Your task to perform on an android device: Show the shopping cart on bestbuy.com. Add "razer nari" to the cart on bestbuy.com Image 0: 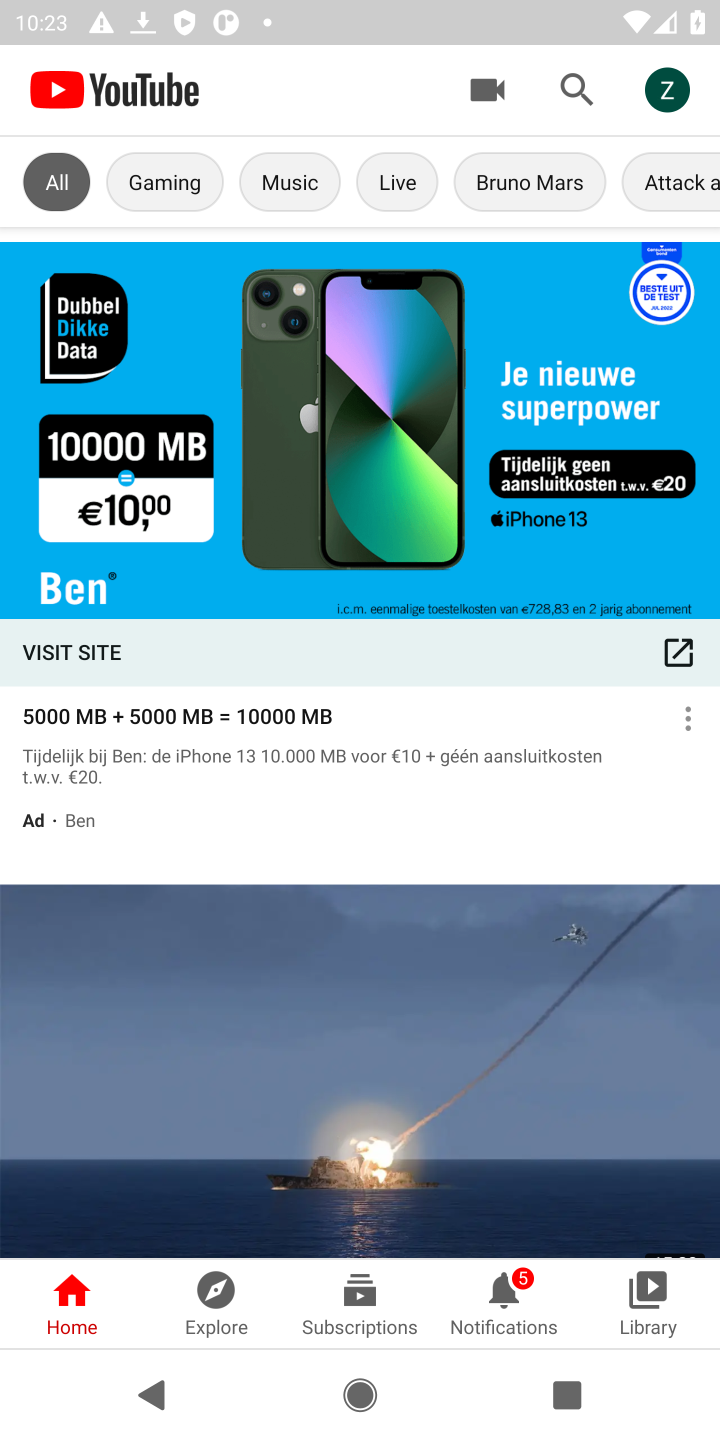
Step 0: press home button
Your task to perform on an android device: Show the shopping cart on bestbuy.com. Add "razer nari" to the cart on bestbuy.com Image 1: 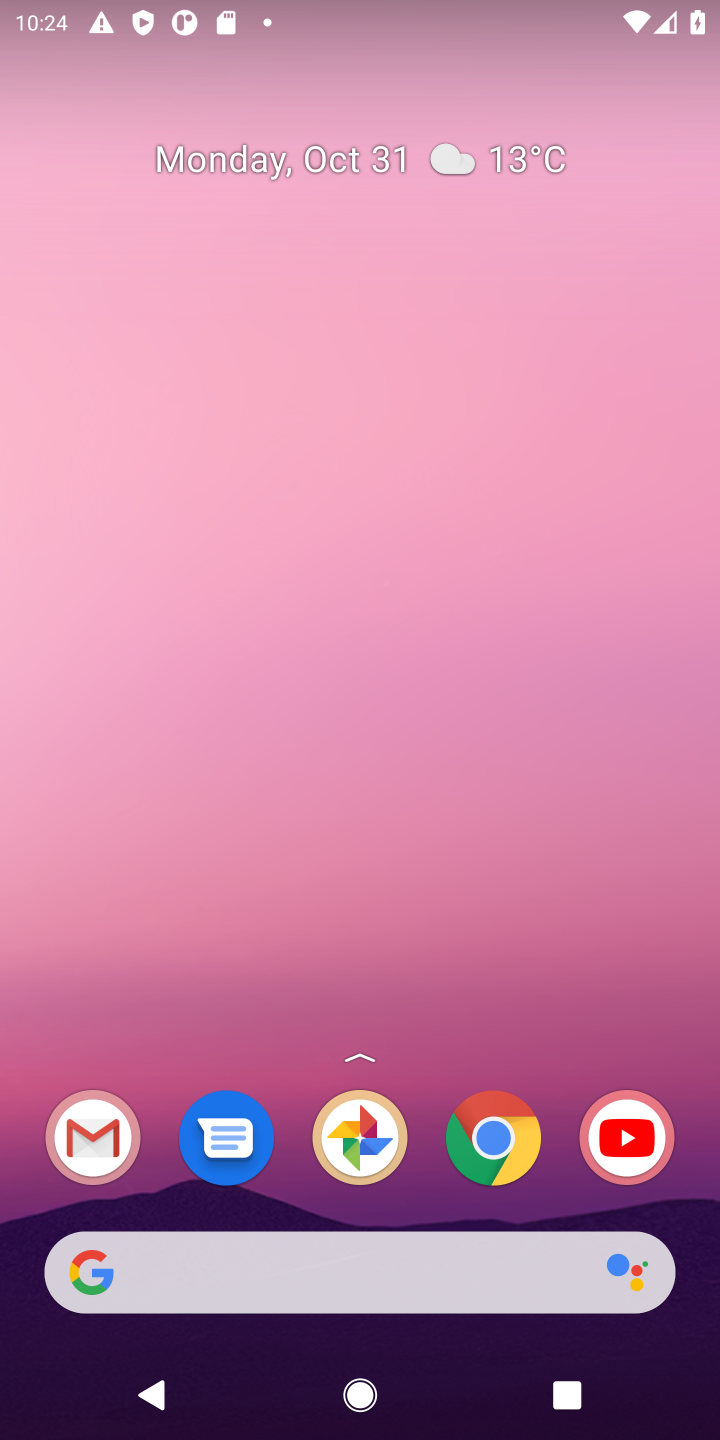
Step 1: click (511, 1136)
Your task to perform on an android device: Show the shopping cart on bestbuy.com. Add "razer nari" to the cart on bestbuy.com Image 2: 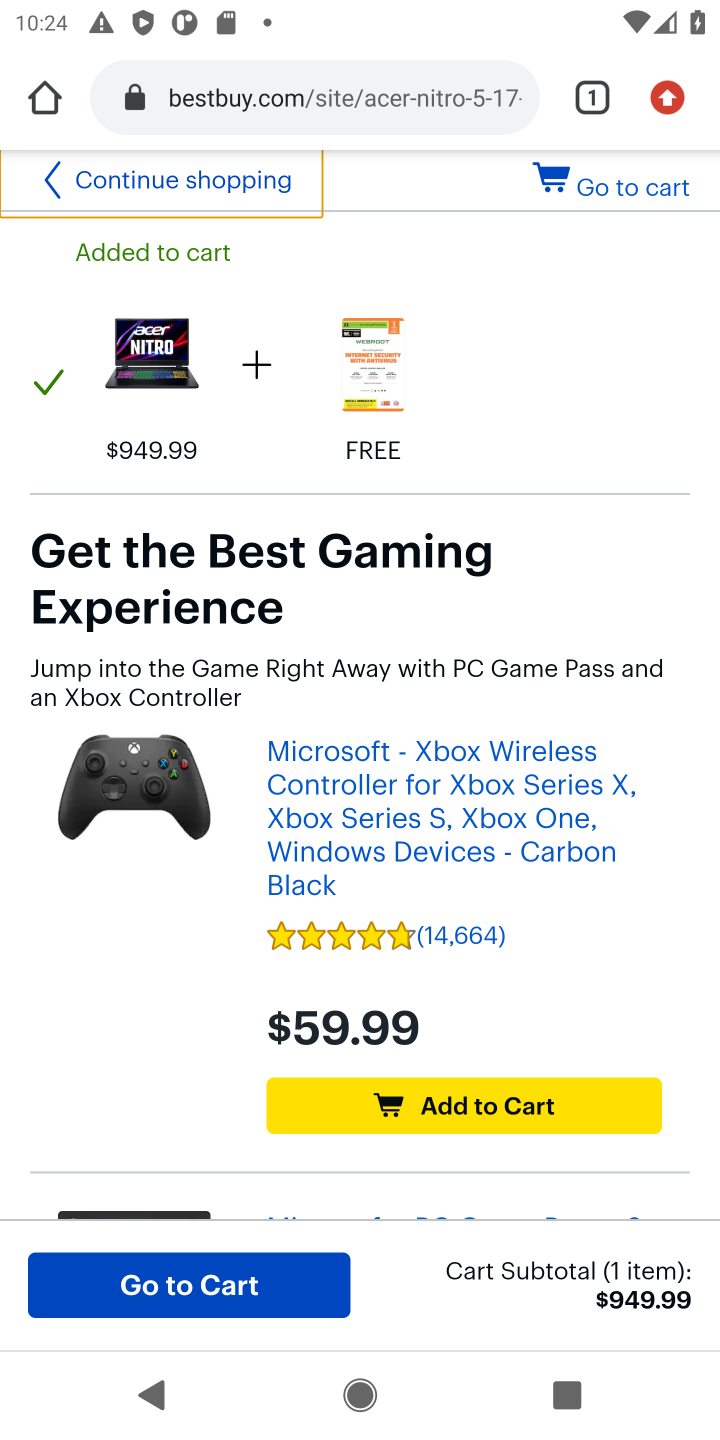
Step 2: click (276, 93)
Your task to perform on an android device: Show the shopping cart on bestbuy.com. Add "razer nari" to the cart on bestbuy.com Image 3: 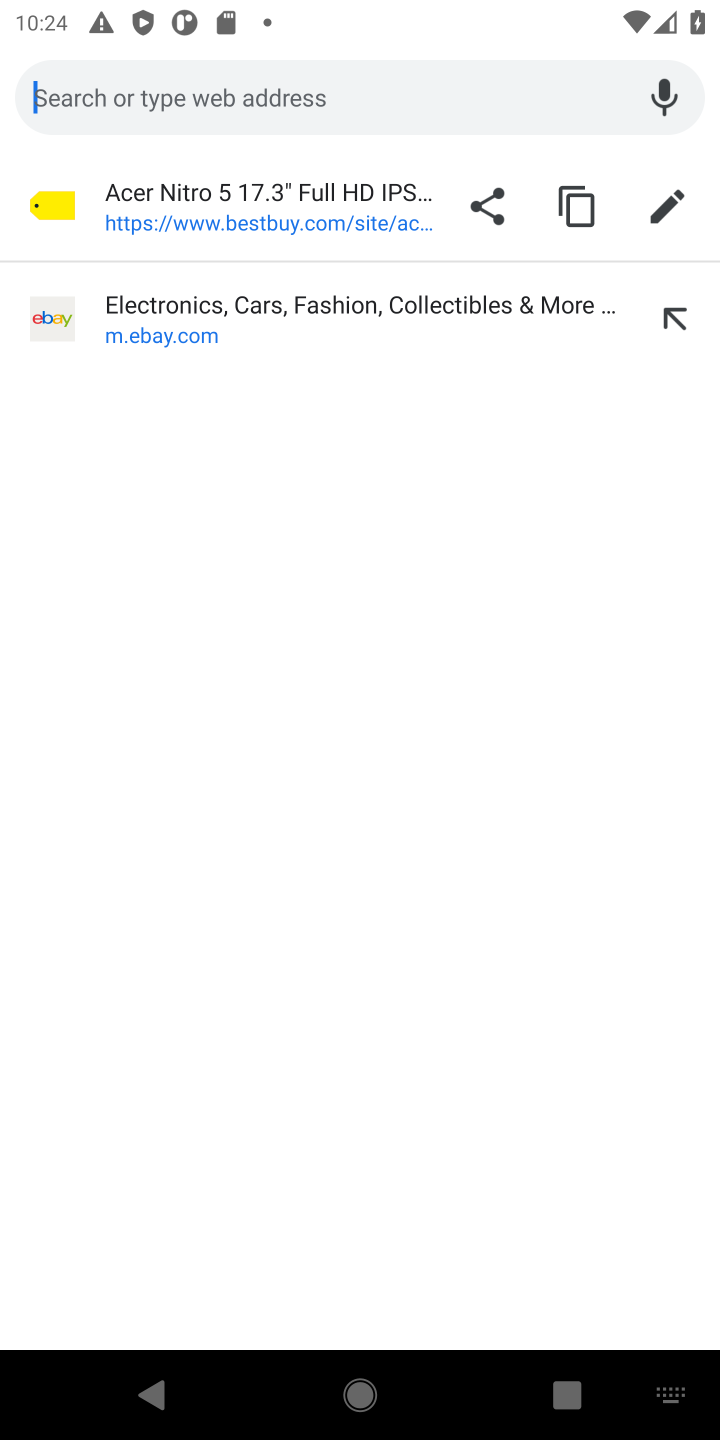
Step 3: press back button
Your task to perform on an android device: Show the shopping cart on bestbuy.com. Add "razer nari" to the cart on bestbuy.com Image 4: 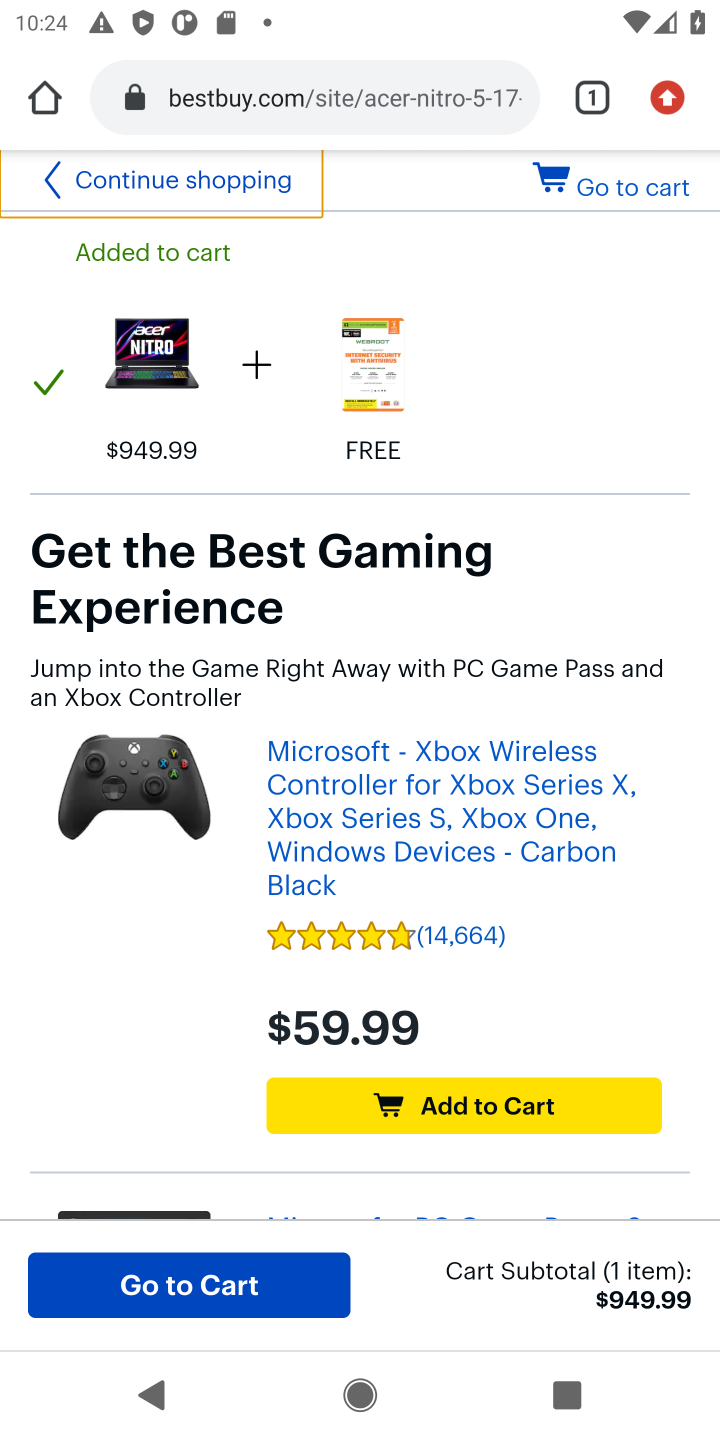
Step 4: click (198, 177)
Your task to perform on an android device: Show the shopping cart on bestbuy.com. Add "razer nari" to the cart on bestbuy.com Image 5: 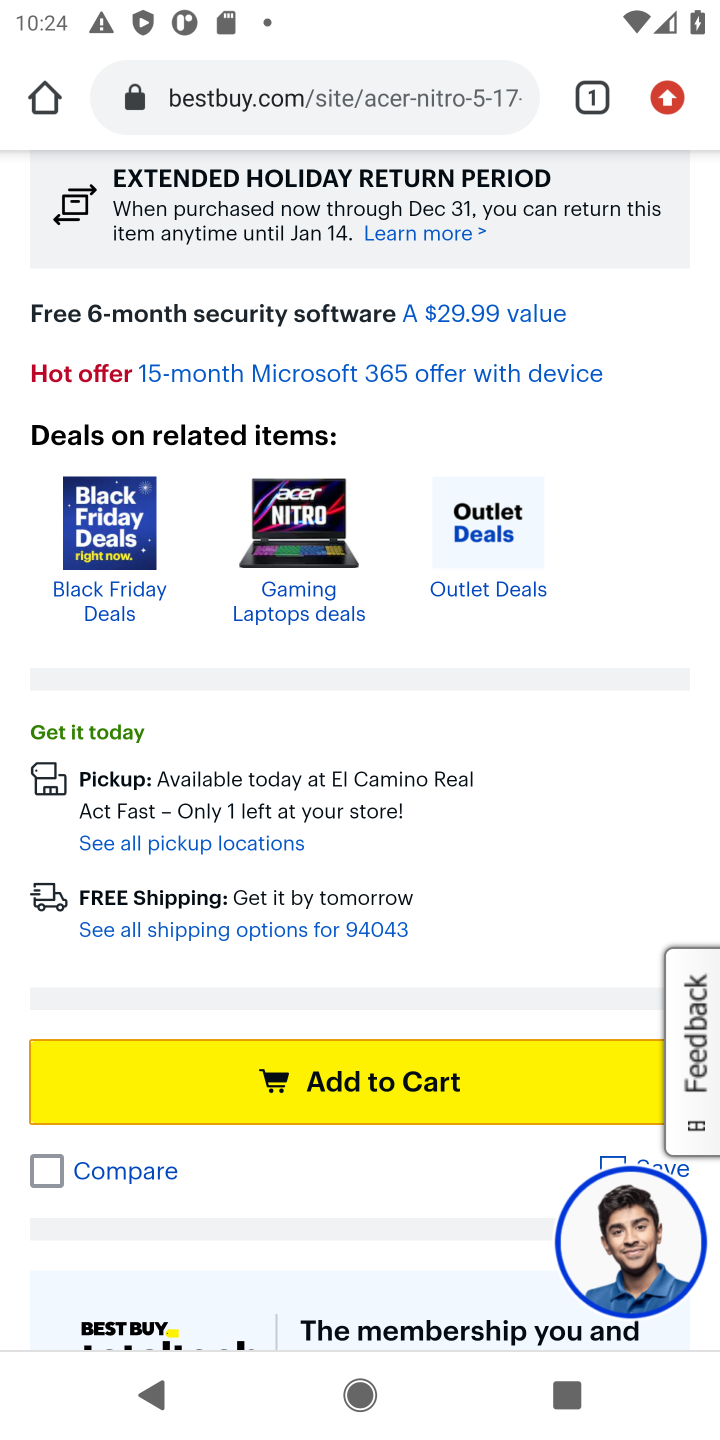
Step 5: drag from (486, 280) to (409, 1133)
Your task to perform on an android device: Show the shopping cart on bestbuy.com. Add "razer nari" to the cart on bestbuy.com Image 6: 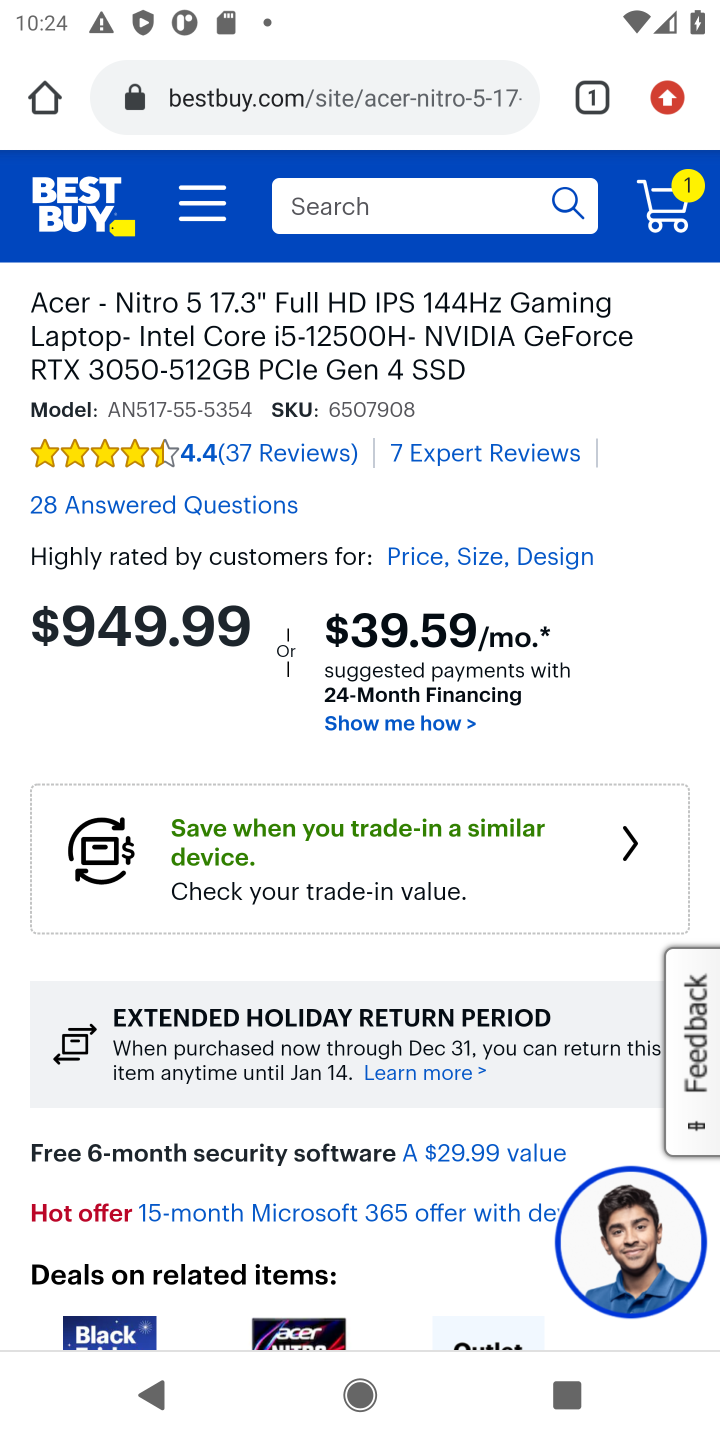
Step 6: click (402, 214)
Your task to perform on an android device: Show the shopping cart on bestbuy.com. Add "razer nari" to the cart on bestbuy.com Image 7: 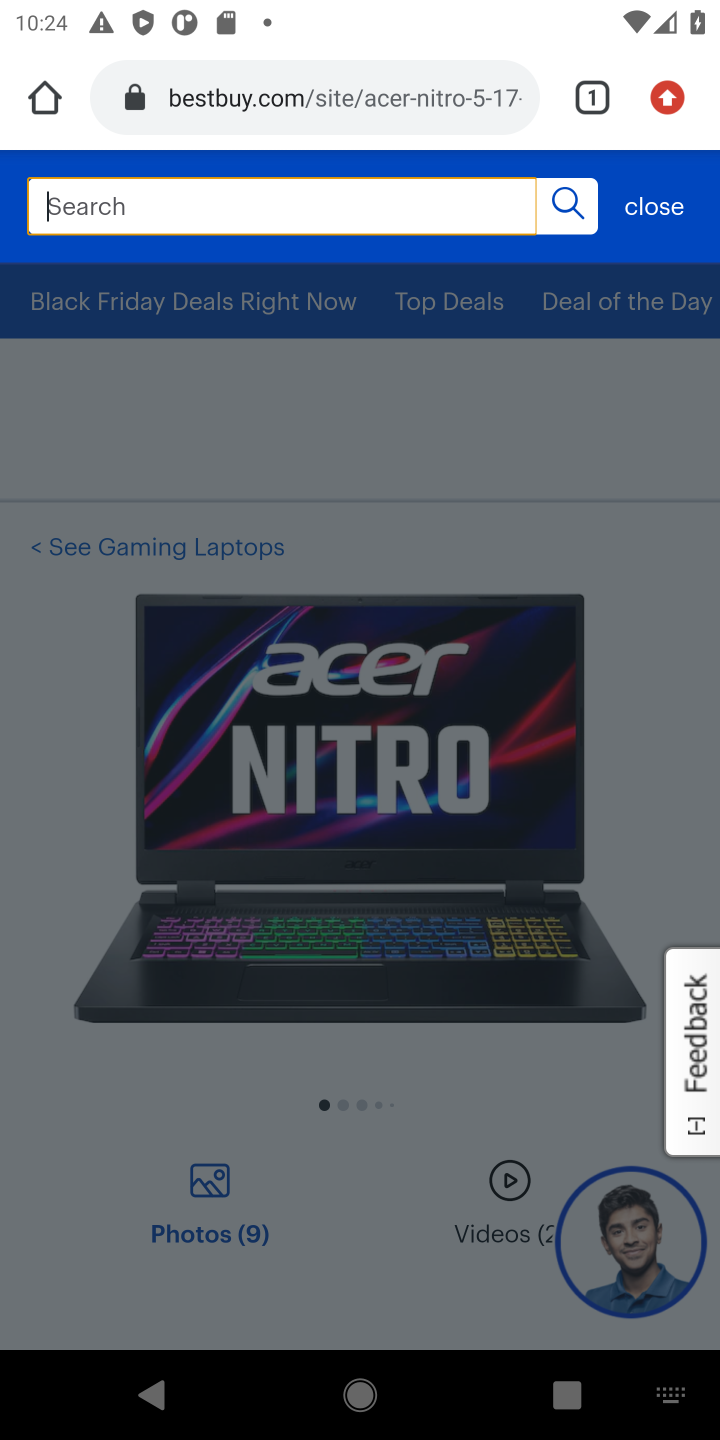
Step 7: type "razer nari"
Your task to perform on an android device: Show the shopping cart on bestbuy.com. Add "razer nari" to the cart on bestbuy.com Image 8: 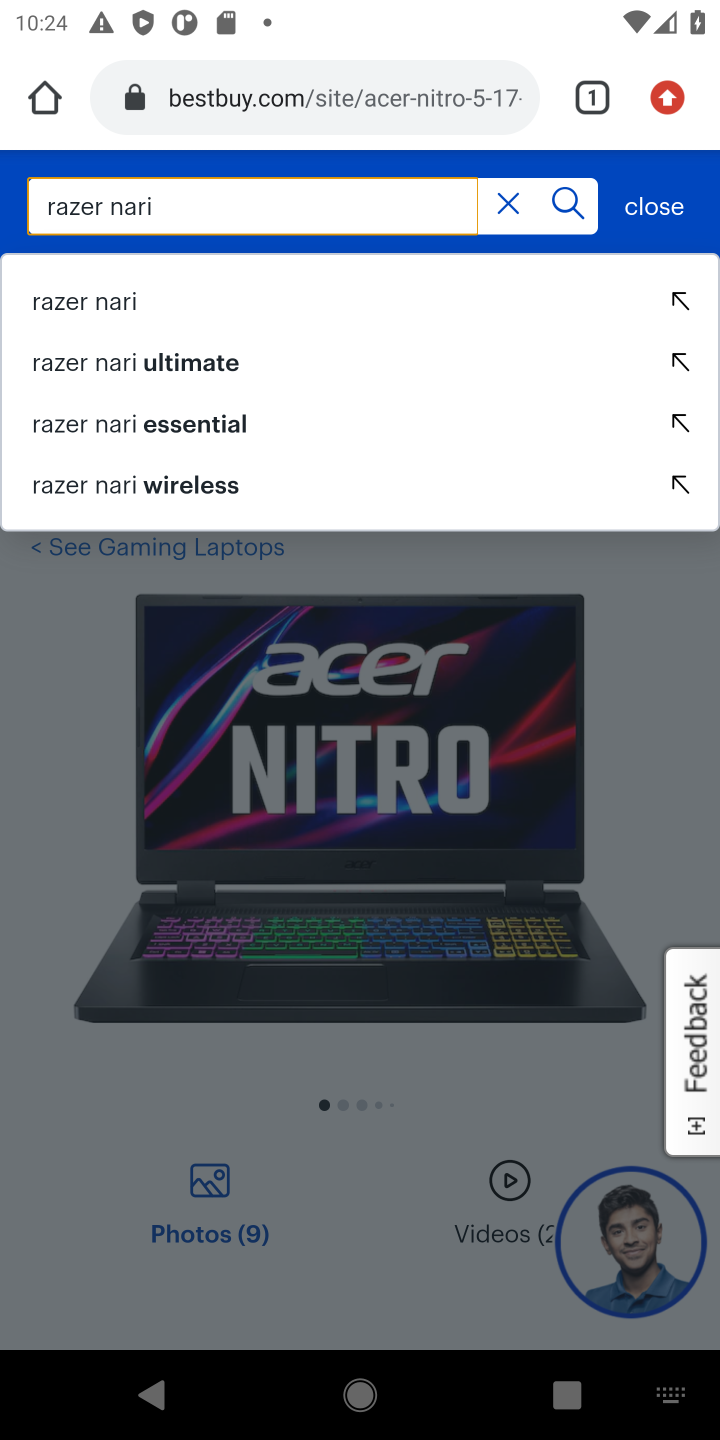
Step 8: click (67, 295)
Your task to perform on an android device: Show the shopping cart on bestbuy.com. Add "razer nari" to the cart on bestbuy.com Image 9: 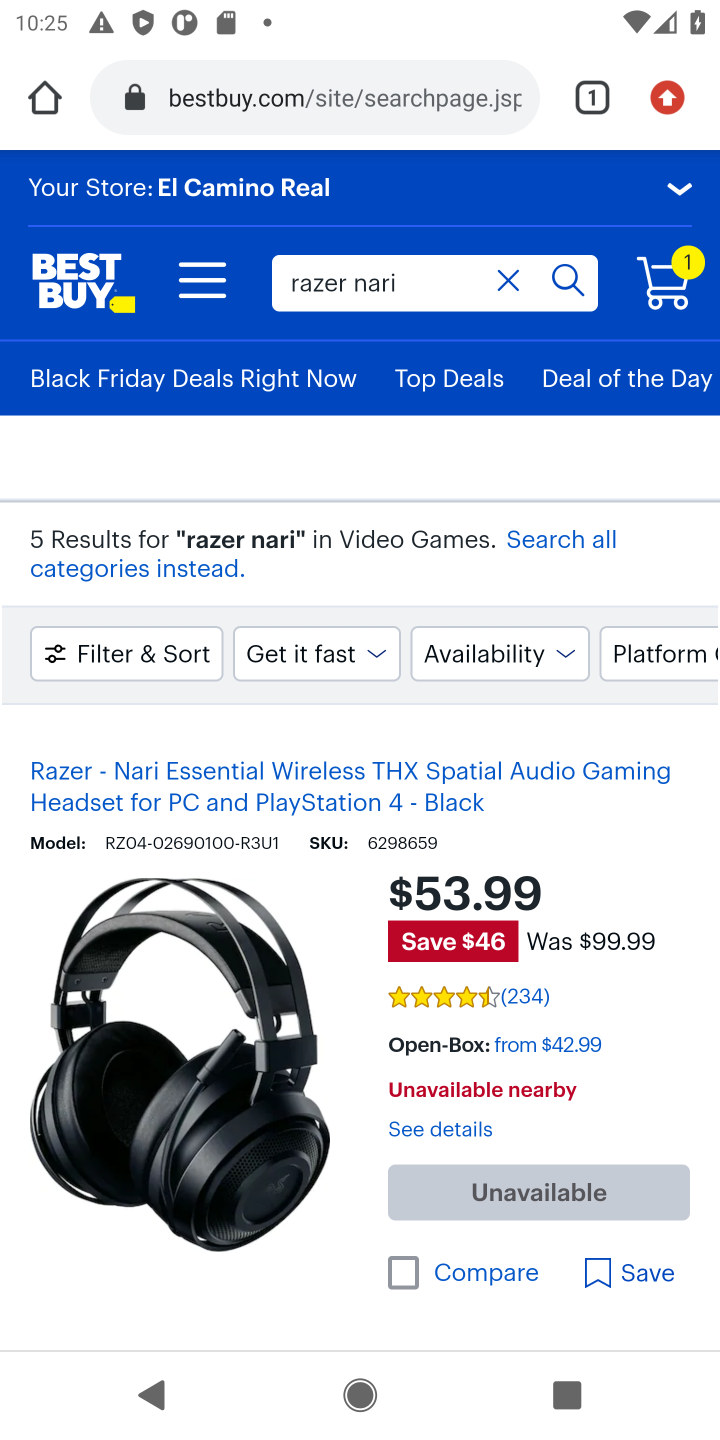
Step 9: drag from (223, 1215) to (280, 515)
Your task to perform on an android device: Show the shopping cart on bestbuy.com. Add "razer nari" to the cart on bestbuy.com Image 10: 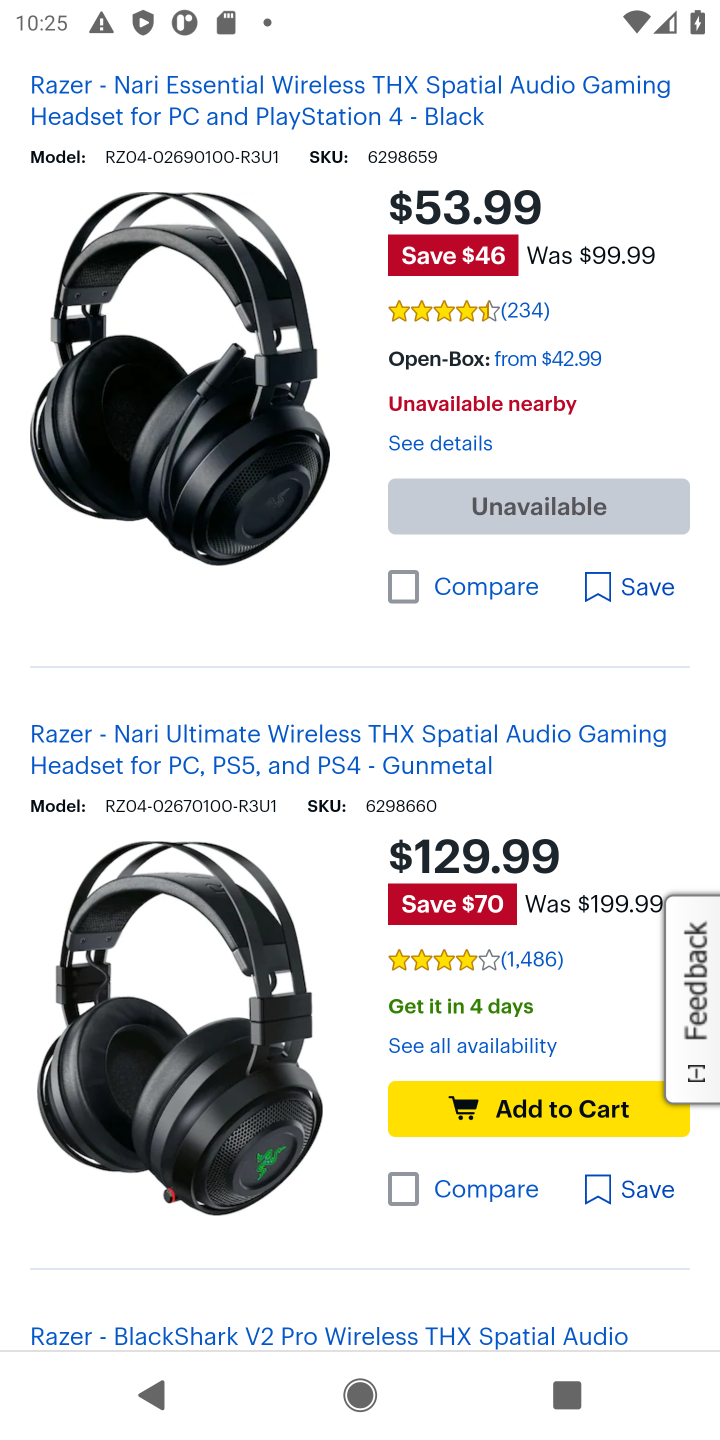
Step 10: click (497, 1113)
Your task to perform on an android device: Show the shopping cart on bestbuy.com. Add "razer nari" to the cart on bestbuy.com Image 11: 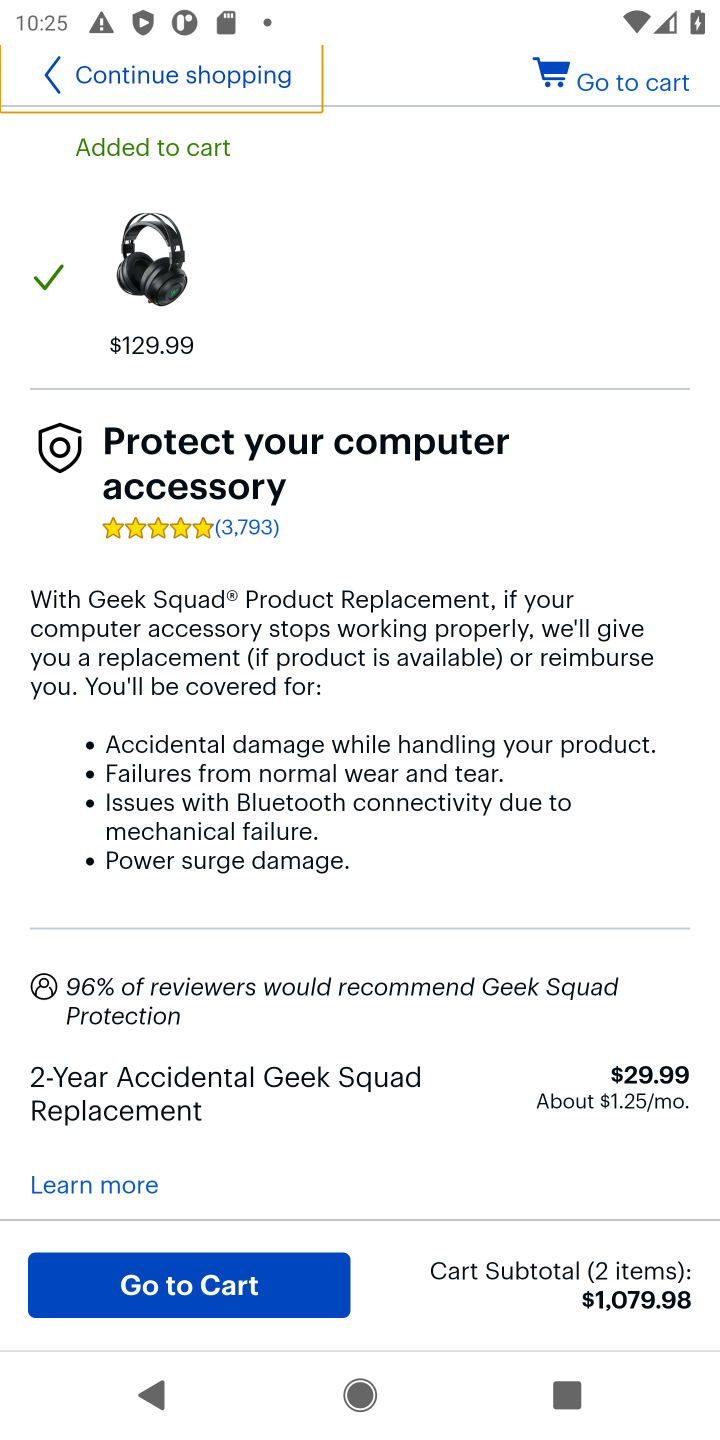
Step 11: task complete